Your task to perform on an android device: allow cookies in the chrome app Image 0: 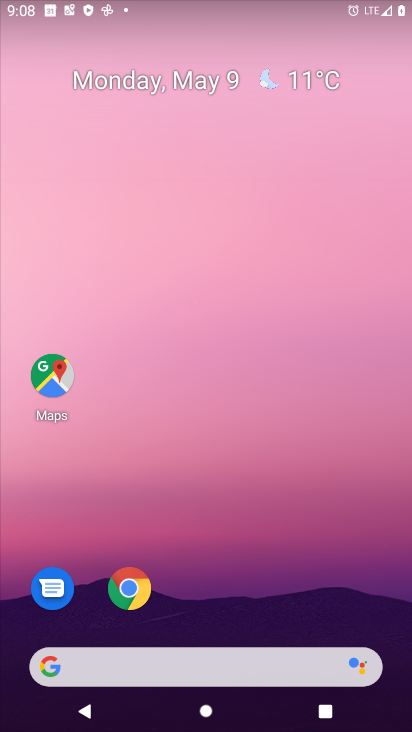
Step 0: drag from (367, 612) to (258, 77)
Your task to perform on an android device: allow cookies in the chrome app Image 1: 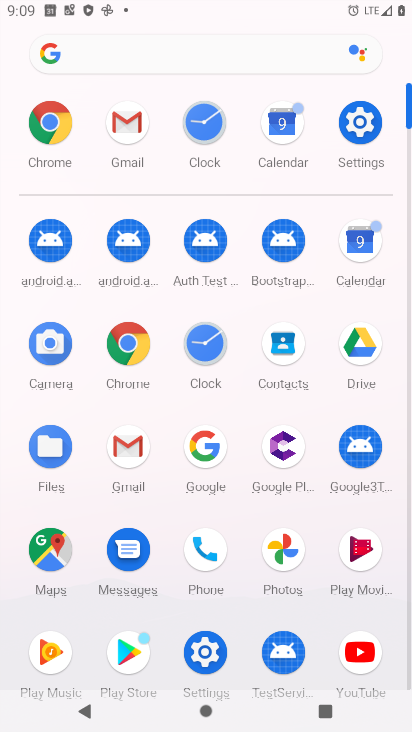
Step 1: click (122, 339)
Your task to perform on an android device: allow cookies in the chrome app Image 2: 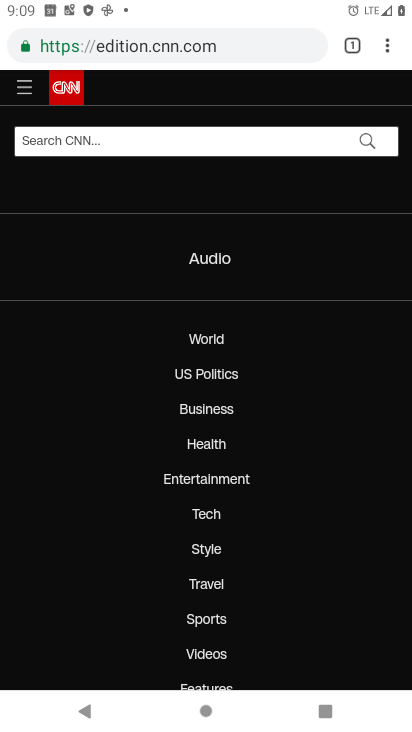
Step 2: press back button
Your task to perform on an android device: allow cookies in the chrome app Image 3: 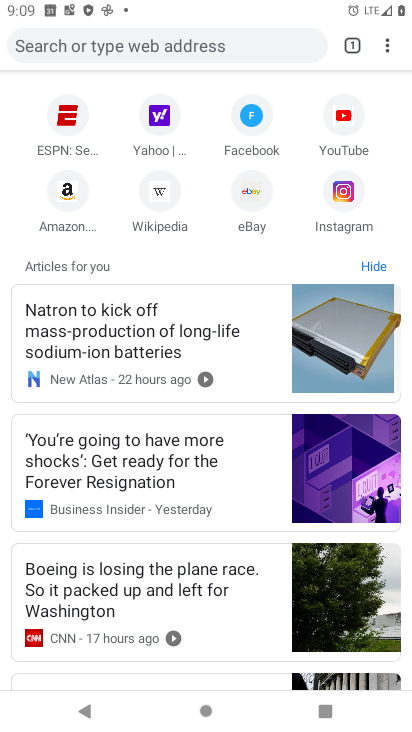
Step 3: click (386, 42)
Your task to perform on an android device: allow cookies in the chrome app Image 4: 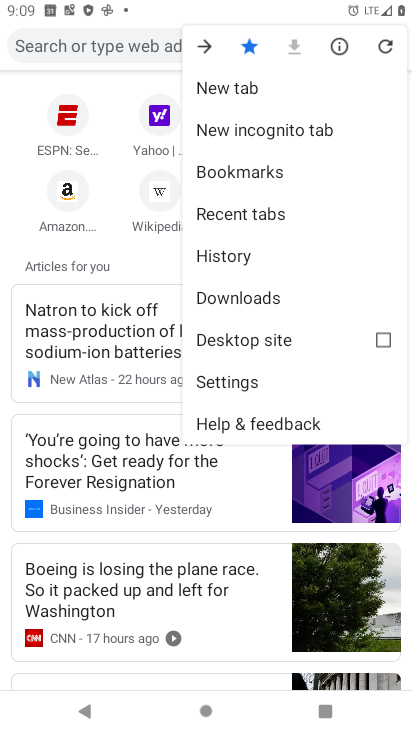
Step 4: click (234, 261)
Your task to perform on an android device: allow cookies in the chrome app Image 5: 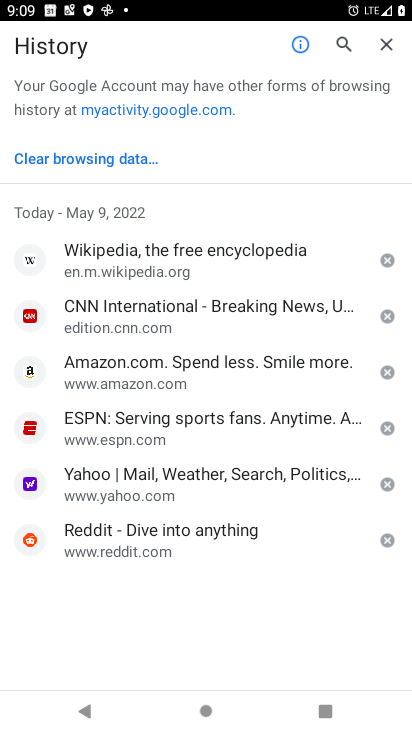
Step 5: click (72, 145)
Your task to perform on an android device: allow cookies in the chrome app Image 6: 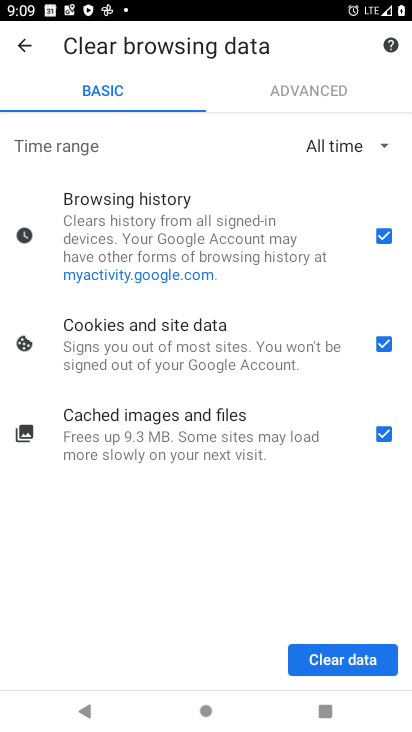
Step 6: task complete